Your task to perform on an android device: Go to sound settings Image 0: 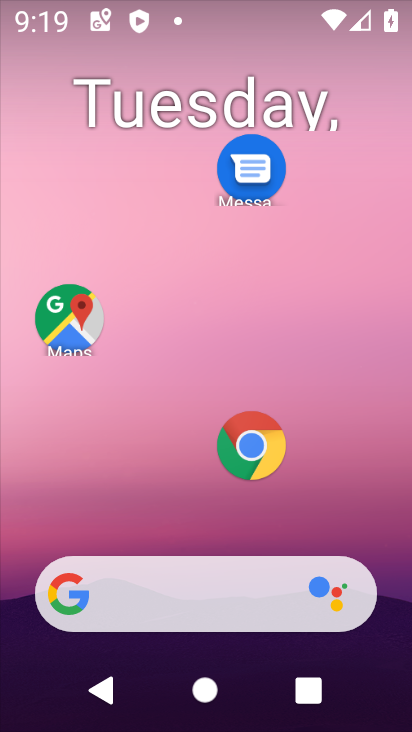
Step 0: drag from (167, 474) to (197, 23)
Your task to perform on an android device: Go to sound settings Image 1: 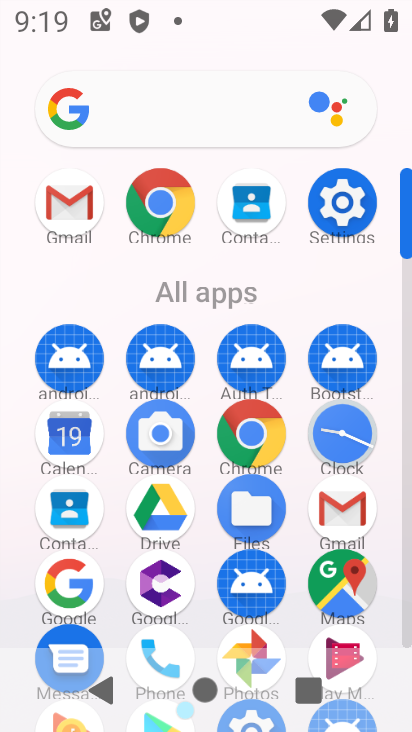
Step 1: click (337, 206)
Your task to perform on an android device: Go to sound settings Image 2: 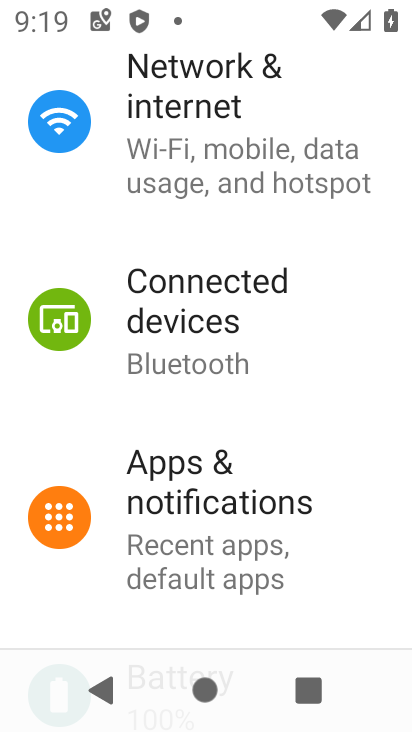
Step 2: drag from (281, 584) to (316, 48)
Your task to perform on an android device: Go to sound settings Image 3: 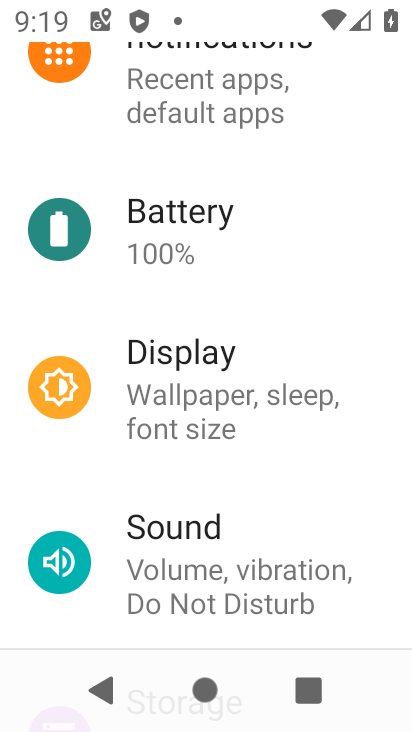
Step 3: click (195, 548)
Your task to perform on an android device: Go to sound settings Image 4: 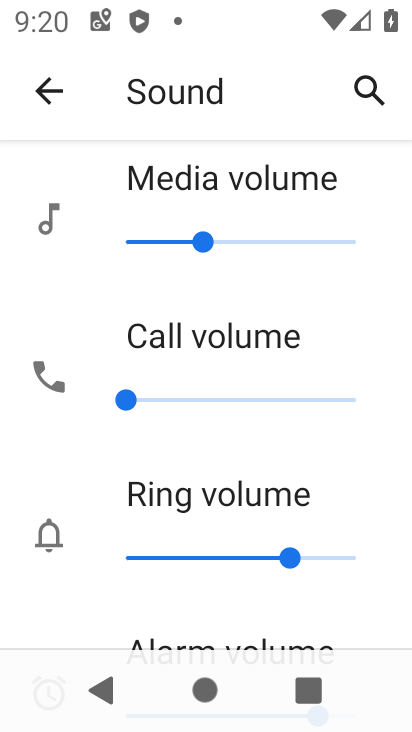
Step 4: click (44, 84)
Your task to perform on an android device: Go to sound settings Image 5: 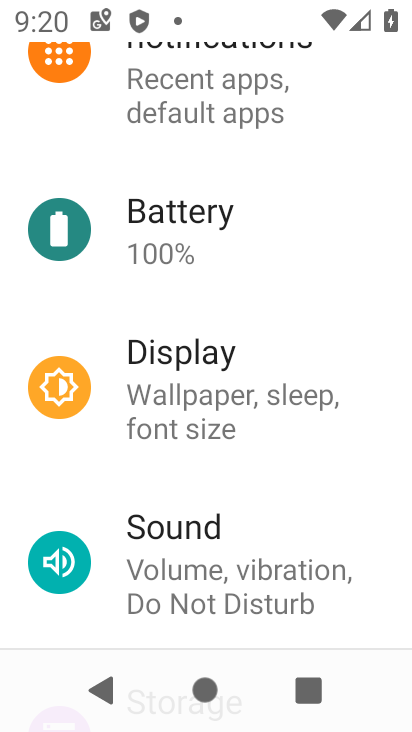
Step 5: click (188, 568)
Your task to perform on an android device: Go to sound settings Image 6: 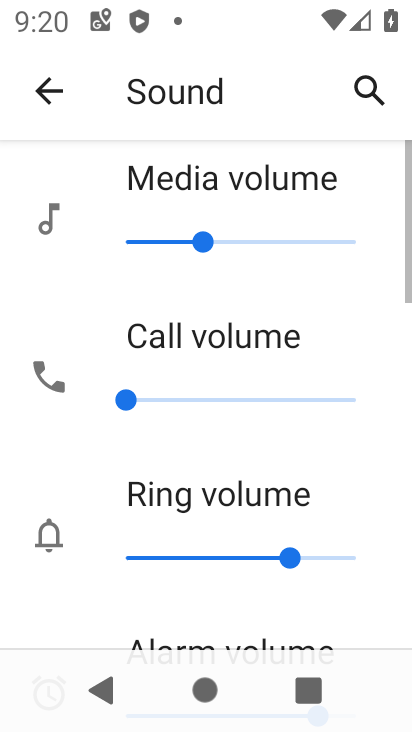
Step 6: task complete